Your task to perform on an android device: Go to display settings Image 0: 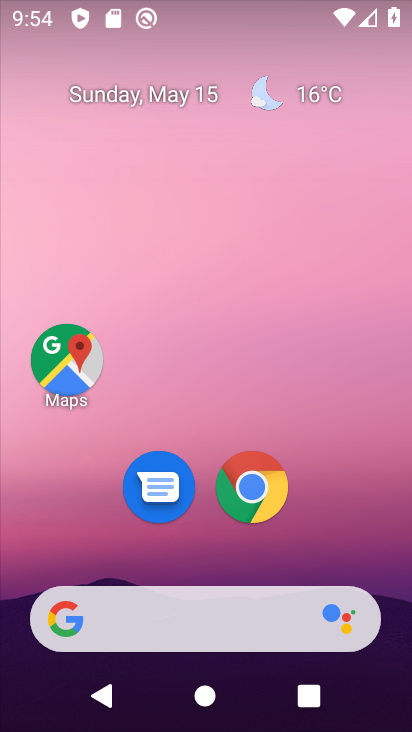
Step 0: drag from (401, 618) to (292, 22)
Your task to perform on an android device: Go to display settings Image 1: 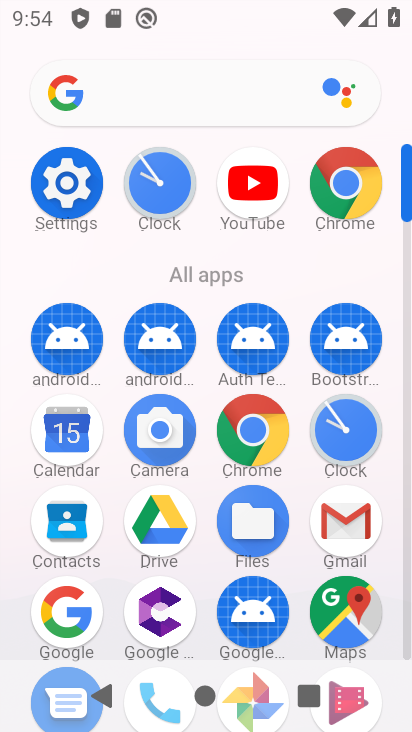
Step 1: click (409, 643)
Your task to perform on an android device: Go to display settings Image 2: 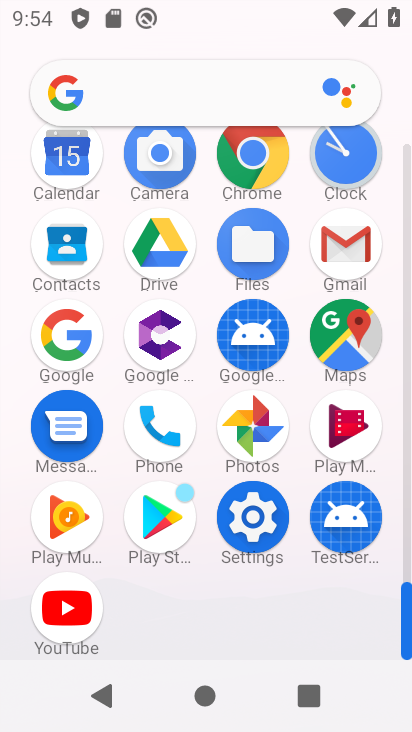
Step 2: click (250, 515)
Your task to perform on an android device: Go to display settings Image 3: 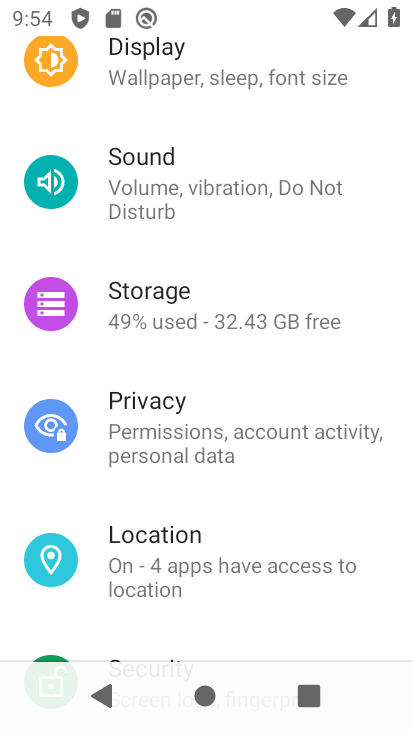
Step 3: drag from (297, 125) to (335, 455)
Your task to perform on an android device: Go to display settings Image 4: 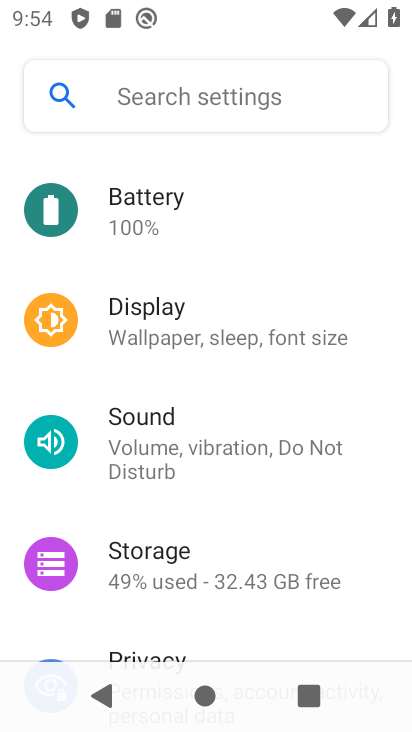
Step 4: click (129, 315)
Your task to perform on an android device: Go to display settings Image 5: 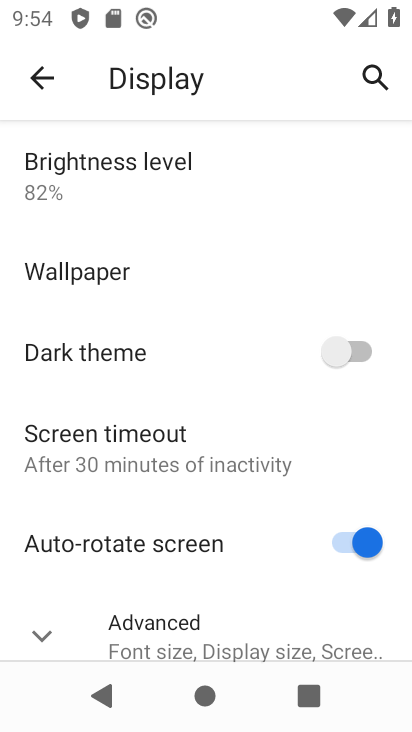
Step 5: drag from (226, 596) to (232, 321)
Your task to perform on an android device: Go to display settings Image 6: 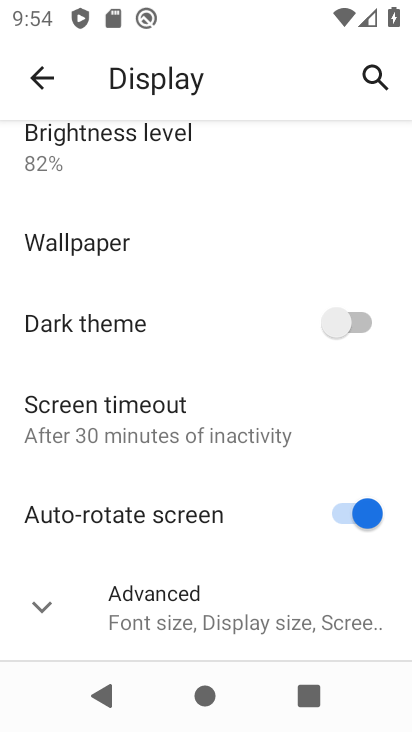
Step 6: click (41, 608)
Your task to perform on an android device: Go to display settings Image 7: 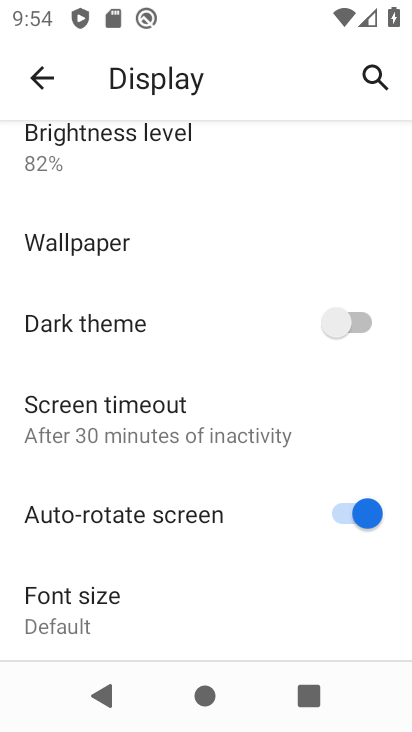
Step 7: task complete